Your task to perform on an android device: What's on my calendar today? Image 0: 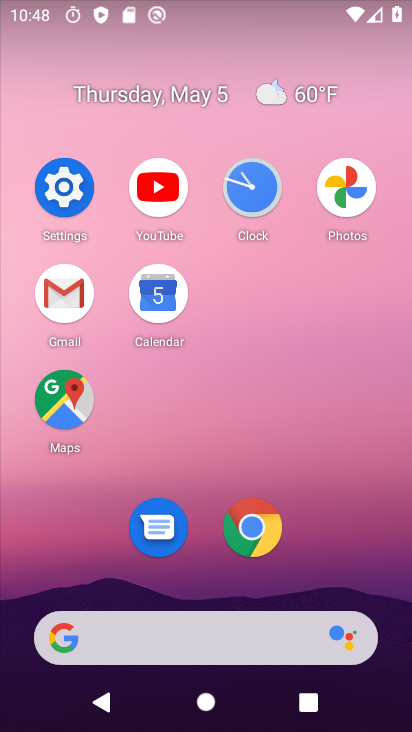
Step 0: drag from (345, 487) to (348, 130)
Your task to perform on an android device: What's on my calendar today? Image 1: 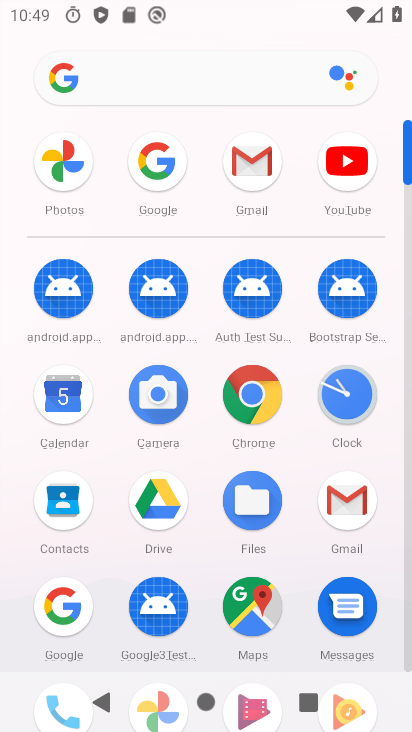
Step 1: click (58, 404)
Your task to perform on an android device: What's on my calendar today? Image 2: 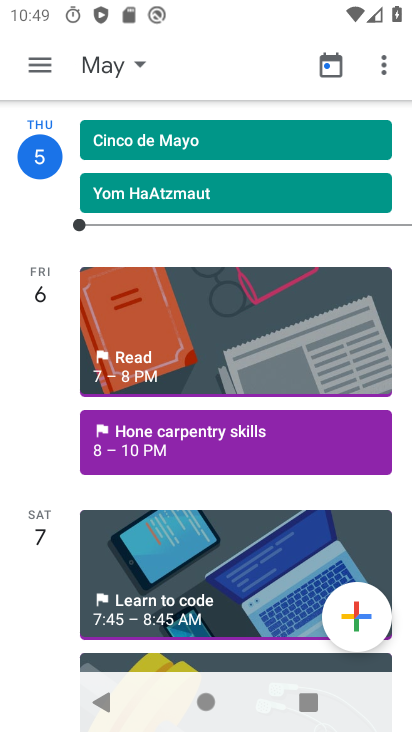
Step 2: click (53, 49)
Your task to perform on an android device: What's on my calendar today? Image 3: 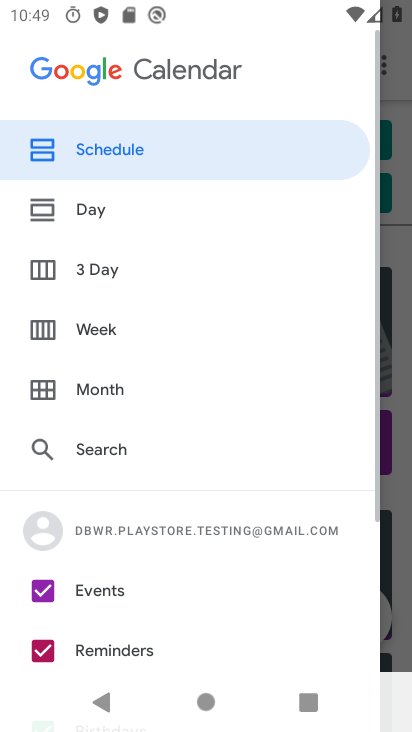
Step 3: click (153, 214)
Your task to perform on an android device: What's on my calendar today? Image 4: 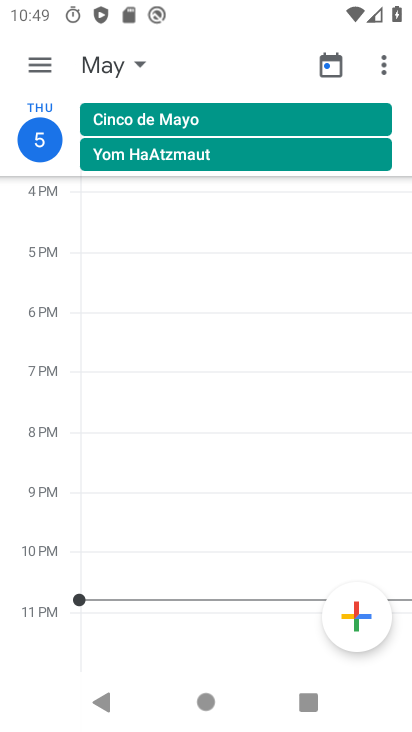
Step 4: task complete